Your task to perform on an android device: Show me popular videos on Youtube Image 0: 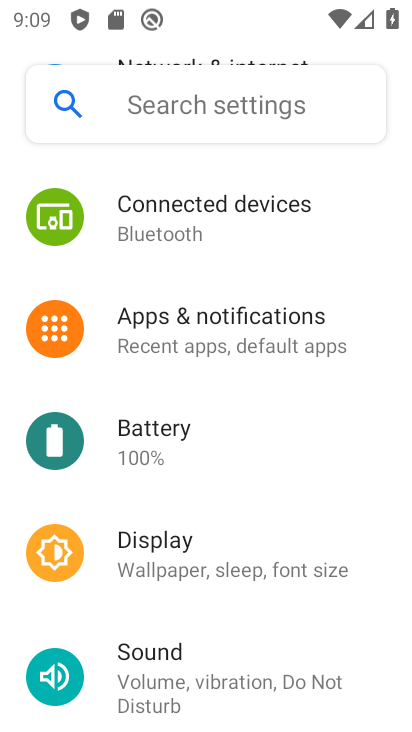
Step 0: press home button
Your task to perform on an android device: Show me popular videos on Youtube Image 1: 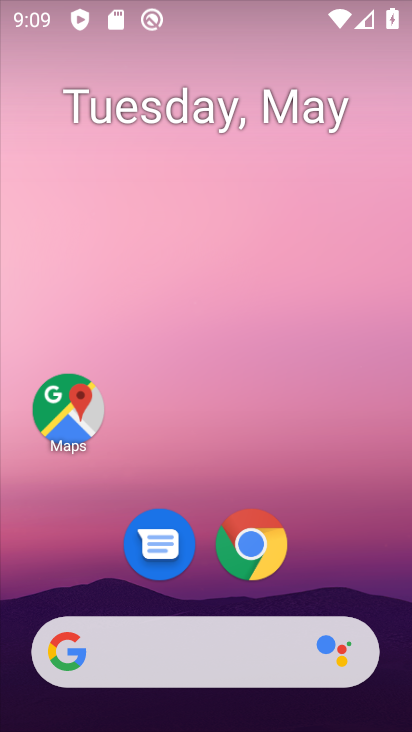
Step 1: drag from (356, 568) to (291, 261)
Your task to perform on an android device: Show me popular videos on Youtube Image 2: 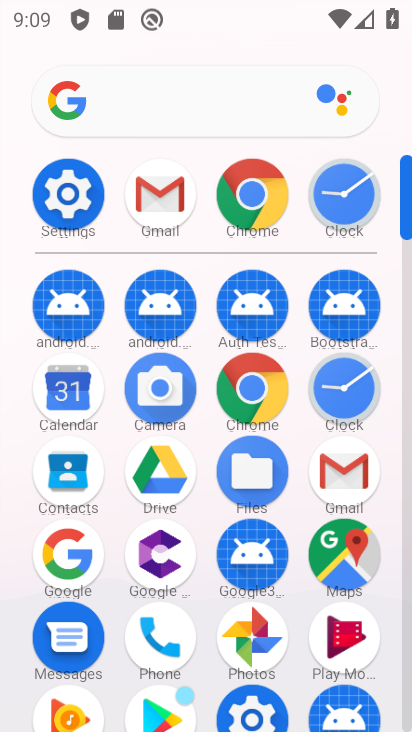
Step 2: drag from (173, 607) to (220, 206)
Your task to perform on an android device: Show me popular videos on Youtube Image 3: 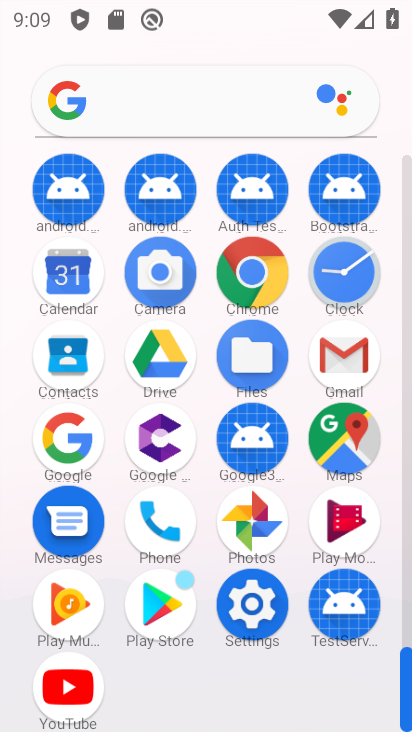
Step 3: click (76, 682)
Your task to perform on an android device: Show me popular videos on Youtube Image 4: 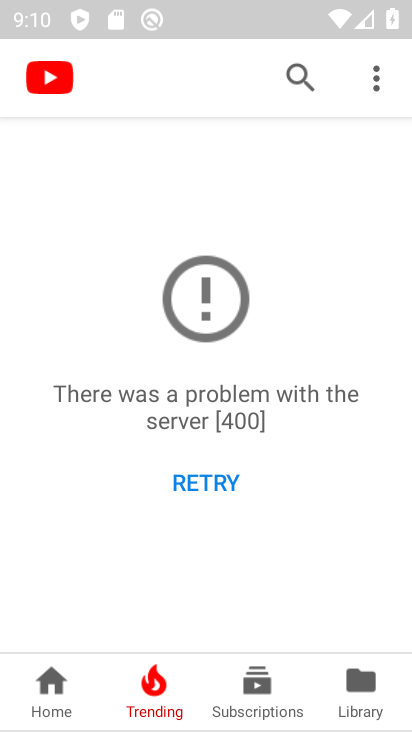
Step 4: task complete